Your task to perform on an android device: toggle airplane mode Image 0: 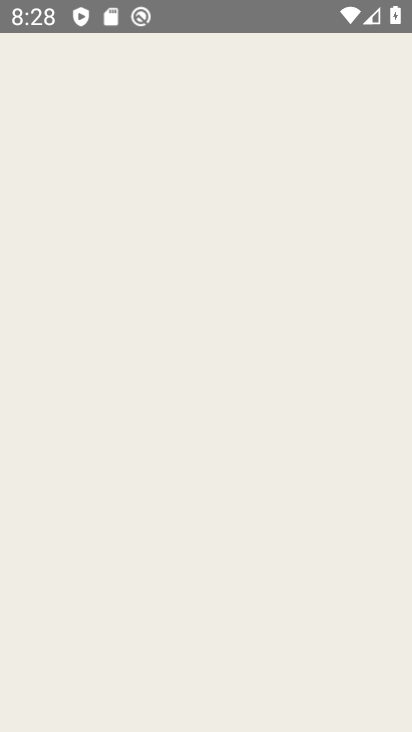
Step 0: click (172, 0)
Your task to perform on an android device: toggle airplane mode Image 1: 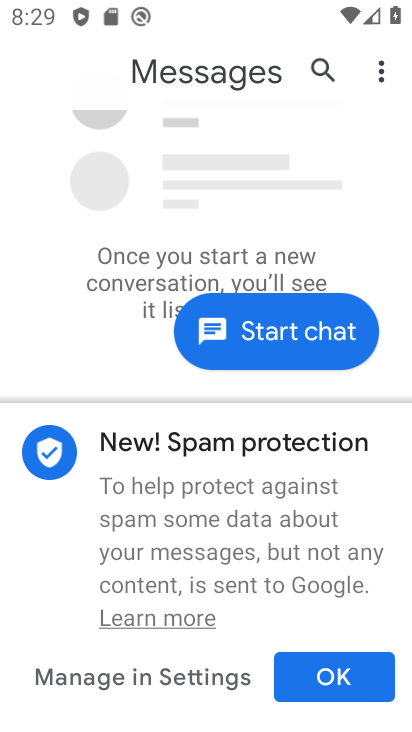
Step 1: press home button
Your task to perform on an android device: toggle airplane mode Image 2: 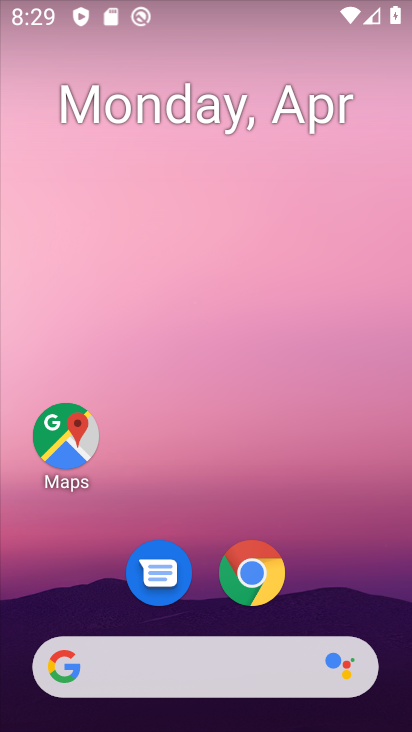
Step 2: drag from (174, 410) to (137, 6)
Your task to perform on an android device: toggle airplane mode Image 3: 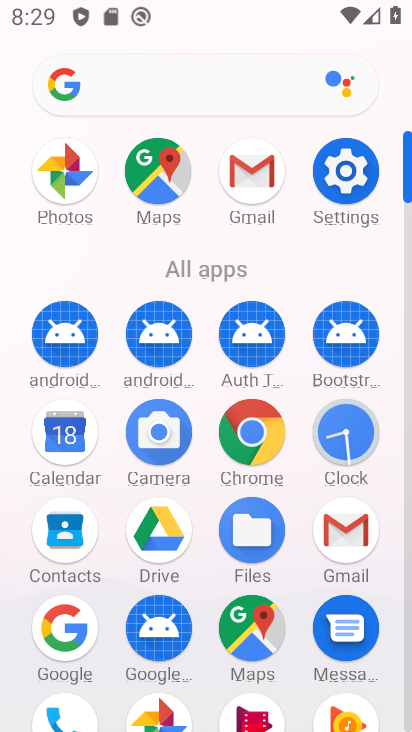
Step 3: click (345, 174)
Your task to perform on an android device: toggle airplane mode Image 4: 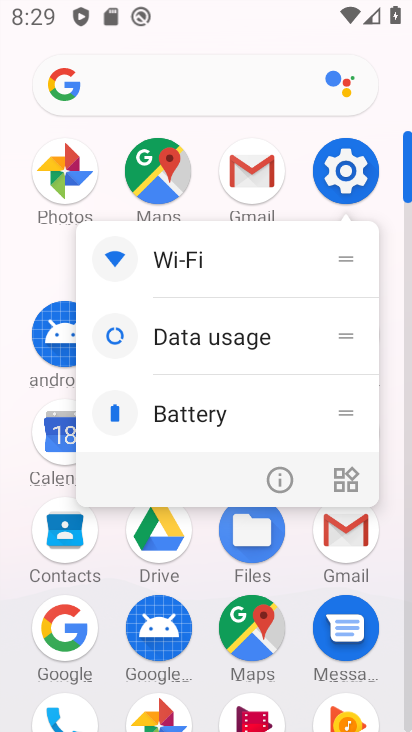
Step 4: click (345, 174)
Your task to perform on an android device: toggle airplane mode Image 5: 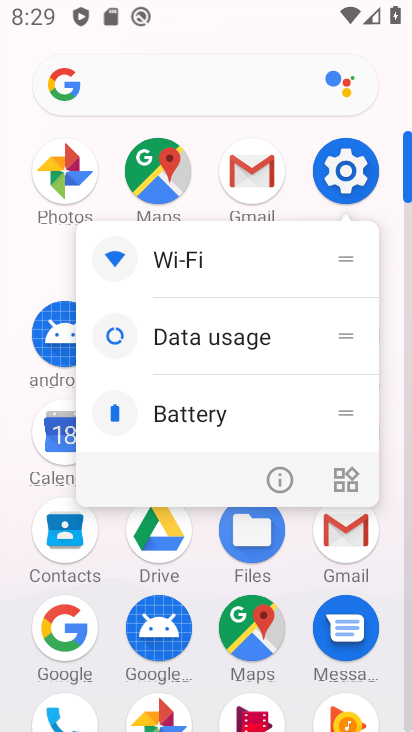
Step 5: click (345, 174)
Your task to perform on an android device: toggle airplane mode Image 6: 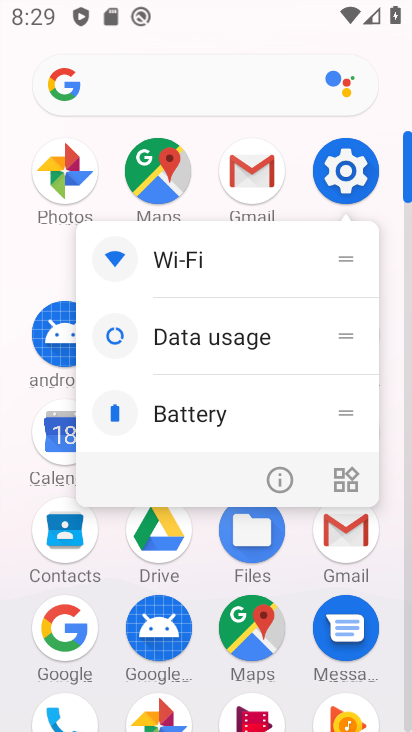
Step 6: click (345, 174)
Your task to perform on an android device: toggle airplane mode Image 7: 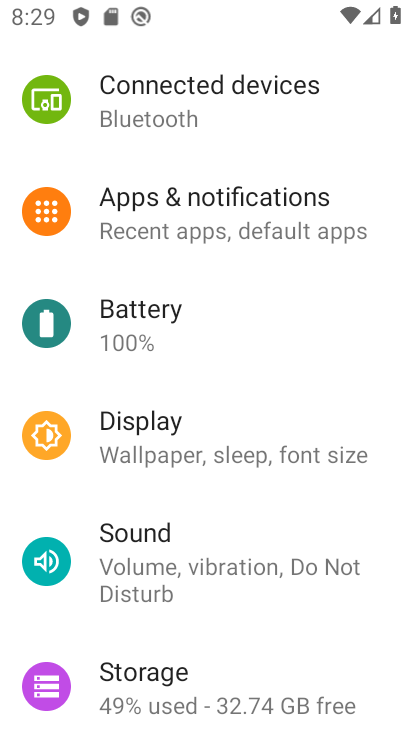
Step 7: drag from (194, 161) to (199, 639)
Your task to perform on an android device: toggle airplane mode Image 8: 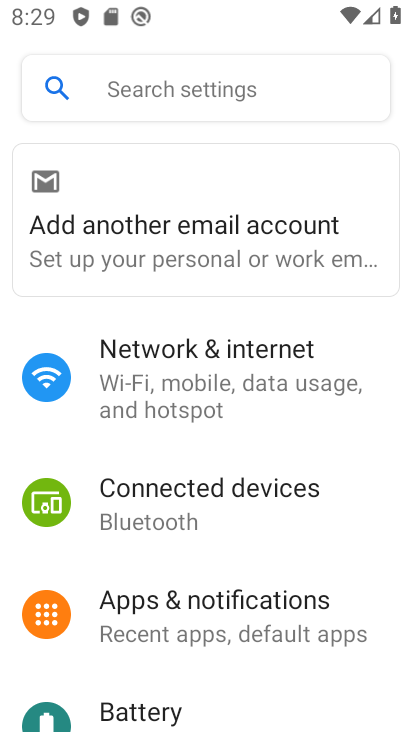
Step 8: click (191, 372)
Your task to perform on an android device: toggle airplane mode Image 9: 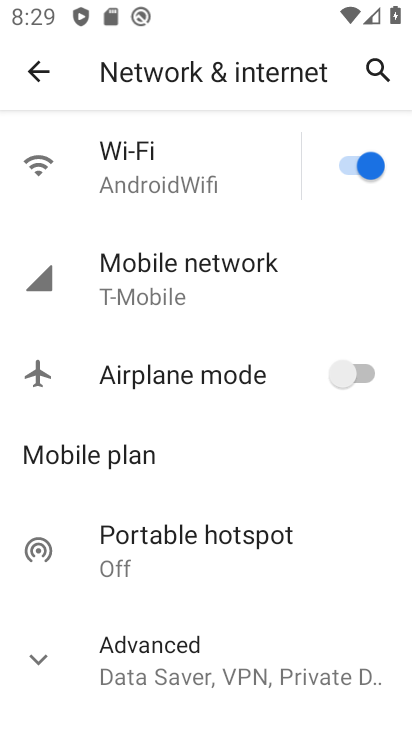
Step 9: click (337, 371)
Your task to perform on an android device: toggle airplane mode Image 10: 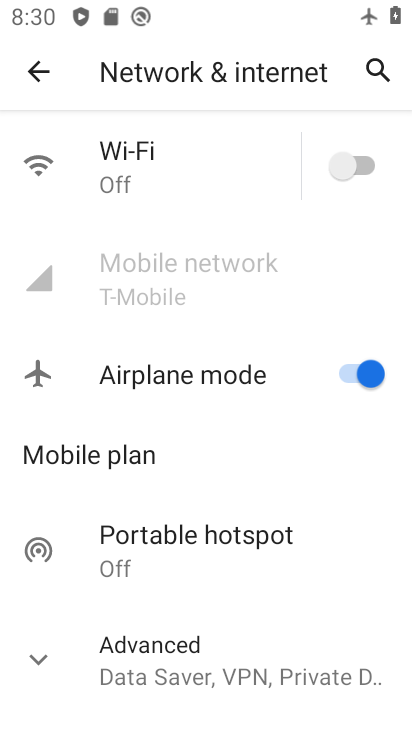
Step 10: task complete